Your task to perform on an android device: Open eBay Image 0: 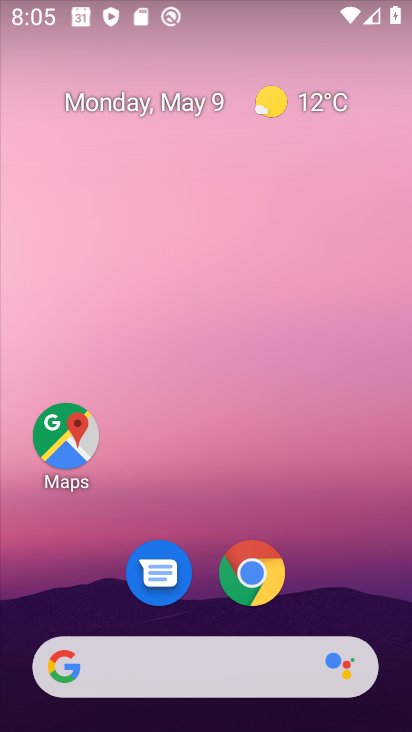
Step 0: drag from (281, 619) to (344, 306)
Your task to perform on an android device: Open eBay Image 1: 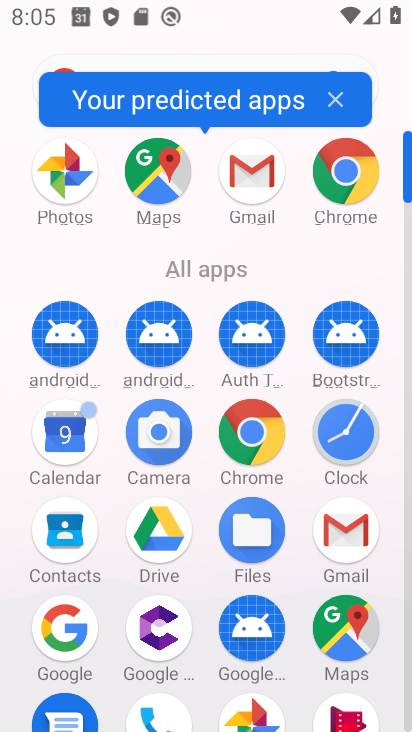
Step 1: click (338, 218)
Your task to perform on an android device: Open eBay Image 2: 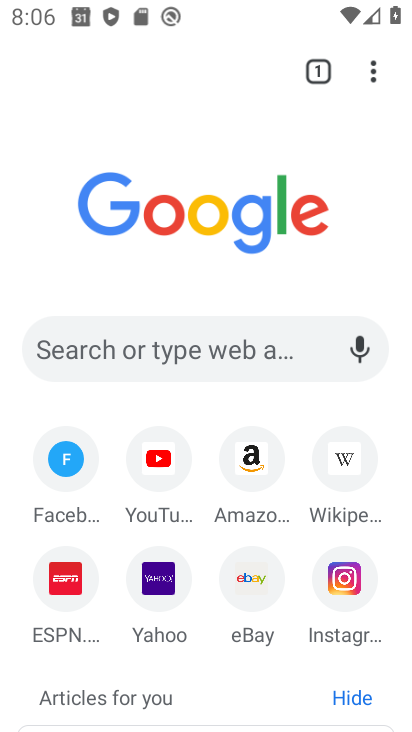
Step 2: click (253, 576)
Your task to perform on an android device: Open eBay Image 3: 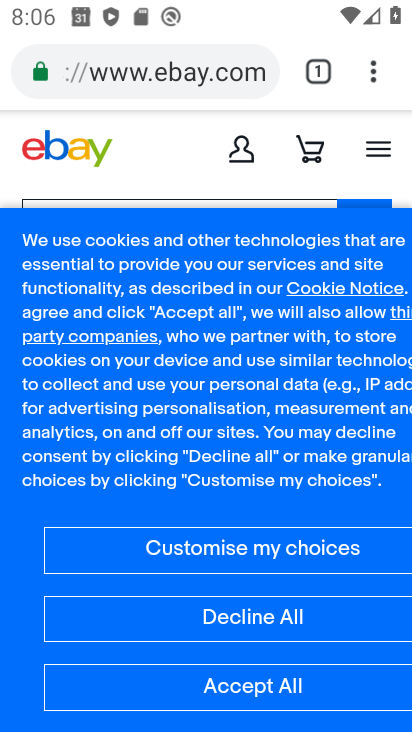
Step 3: task complete